Your task to perform on an android device: Open Yahoo.com Image 0: 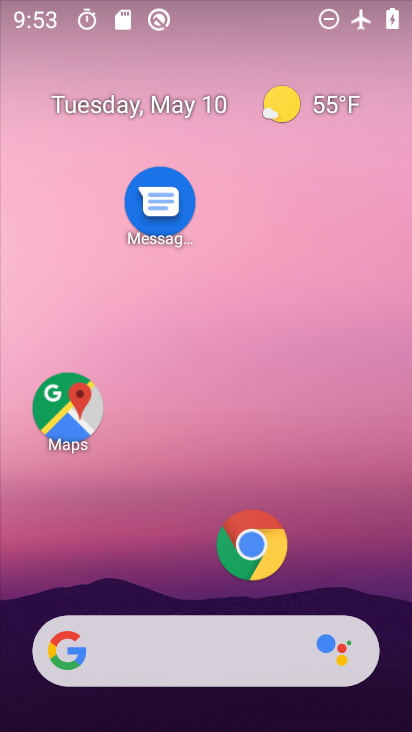
Step 0: click (248, 552)
Your task to perform on an android device: Open Yahoo.com Image 1: 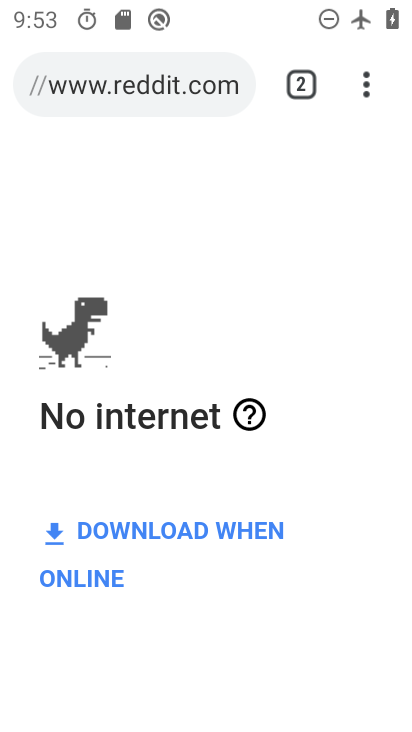
Step 1: click (311, 95)
Your task to perform on an android device: Open Yahoo.com Image 2: 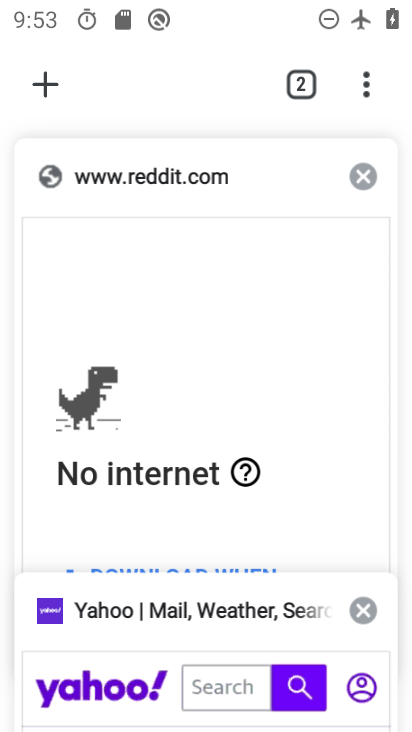
Step 2: click (151, 653)
Your task to perform on an android device: Open Yahoo.com Image 3: 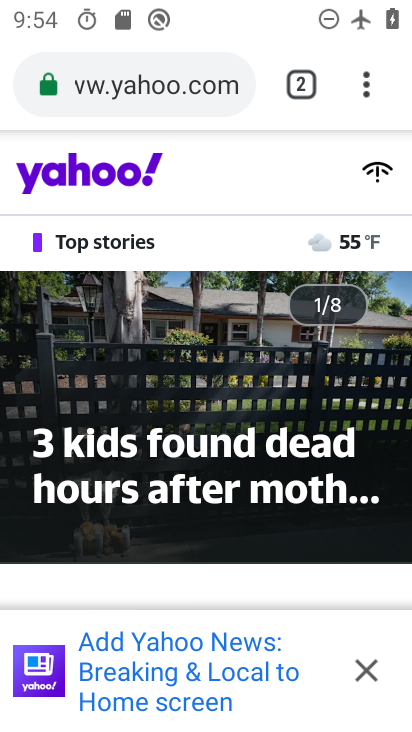
Step 3: task complete